Your task to perform on an android device: change notification settings in the gmail app Image 0: 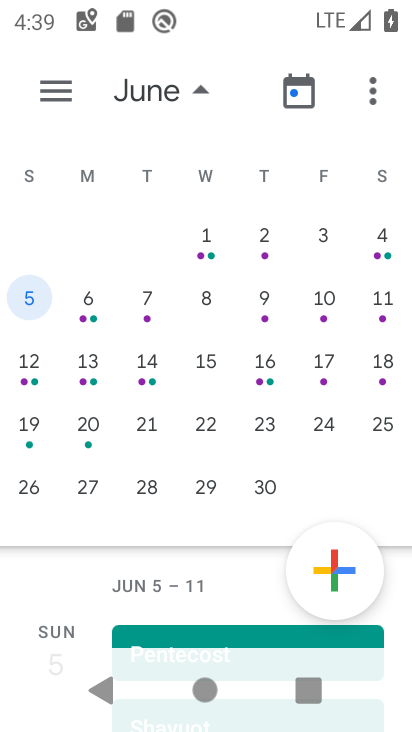
Step 0: press home button
Your task to perform on an android device: change notification settings in the gmail app Image 1: 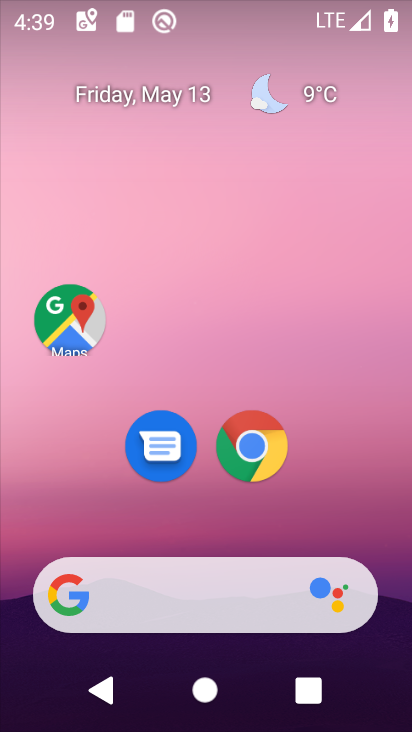
Step 1: drag from (174, 528) to (180, 24)
Your task to perform on an android device: change notification settings in the gmail app Image 2: 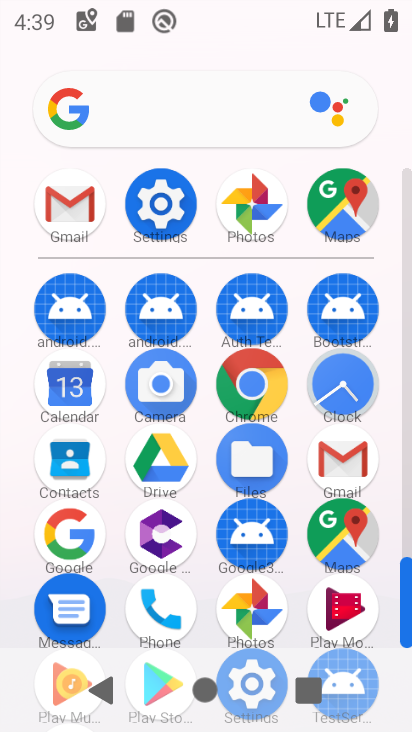
Step 2: click (324, 454)
Your task to perform on an android device: change notification settings in the gmail app Image 3: 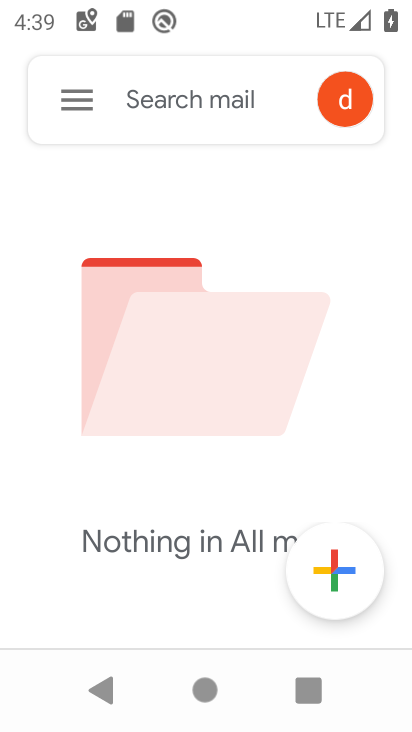
Step 3: click (86, 103)
Your task to perform on an android device: change notification settings in the gmail app Image 4: 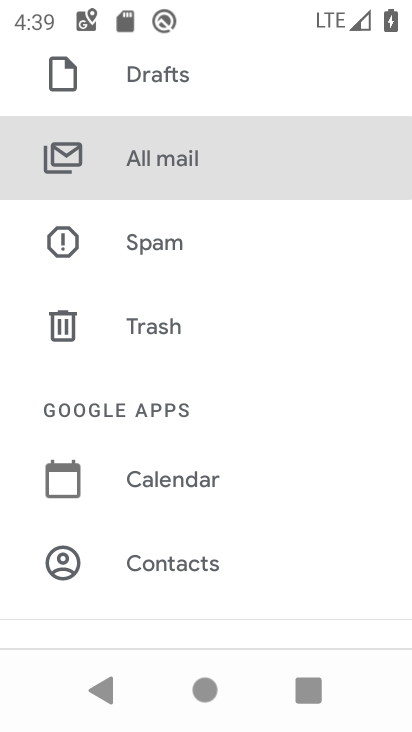
Step 4: drag from (194, 541) to (176, 238)
Your task to perform on an android device: change notification settings in the gmail app Image 5: 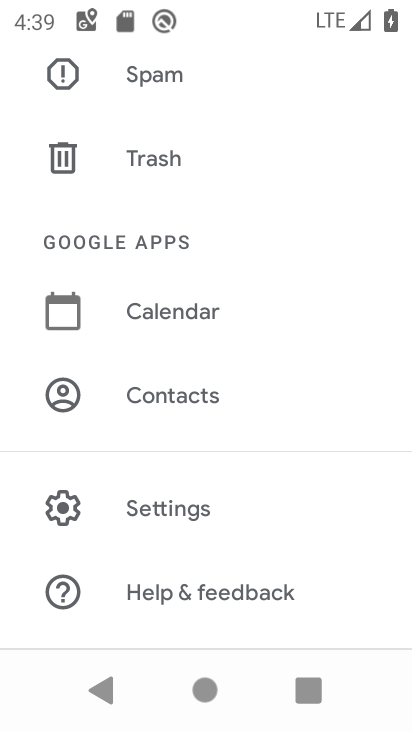
Step 5: click (180, 487)
Your task to perform on an android device: change notification settings in the gmail app Image 6: 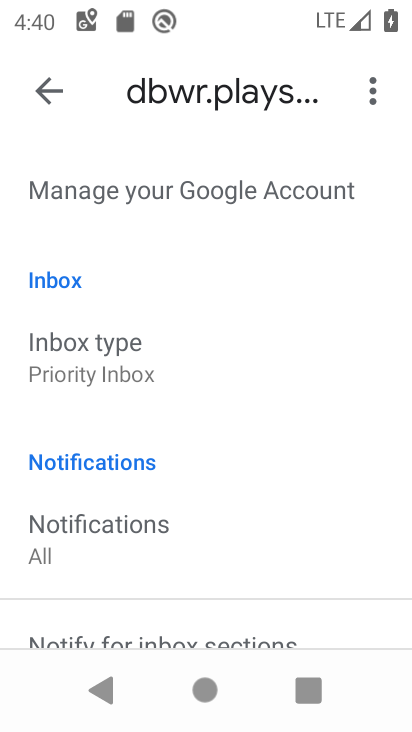
Step 6: task complete